Your task to perform on an android device: check the backup settings in the google photos Image 0: 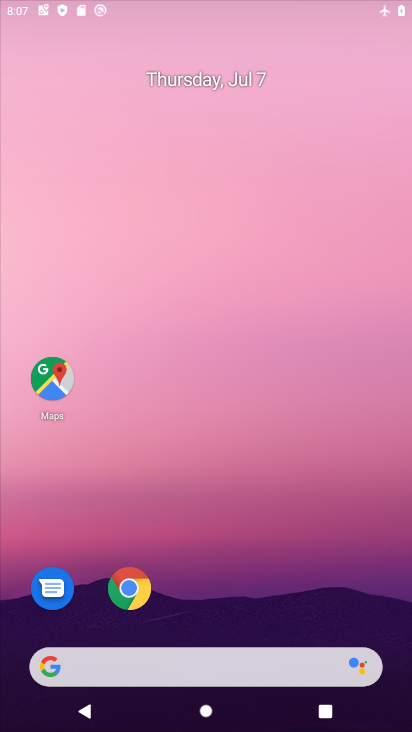
Step 0: drag from (302, 626) to (271, 212)
Your task to perform on an android device: check the backup settings in the google photos Image 1: 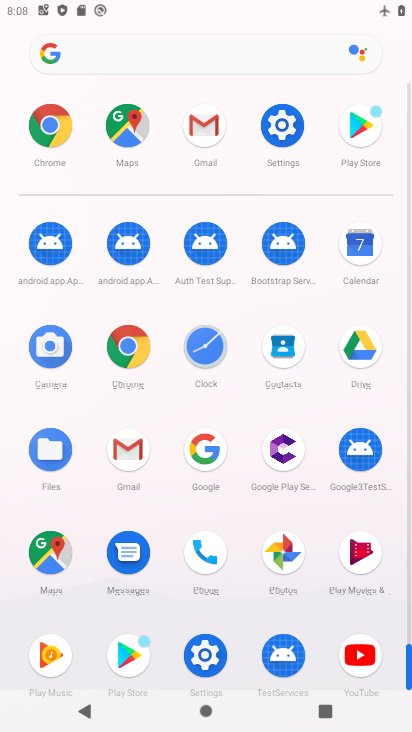
Step 1: click (281, 551)
Your task to perform on an android device: check the backup settings in the google photos Image 2: 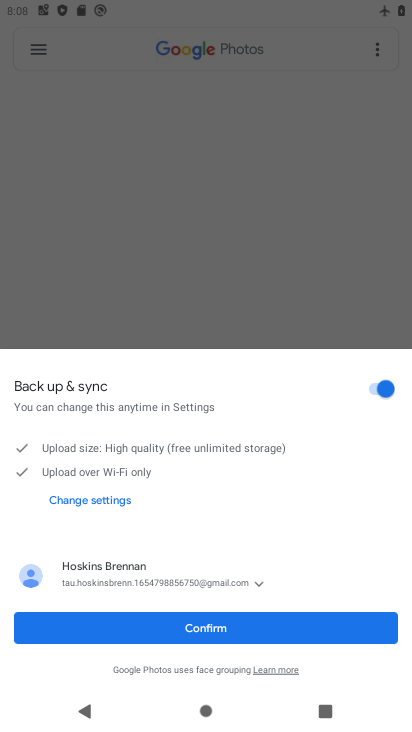
Step 2: click (240, 624)
Your task to perform on an android device: check the backup settings in the google photos Image 3: 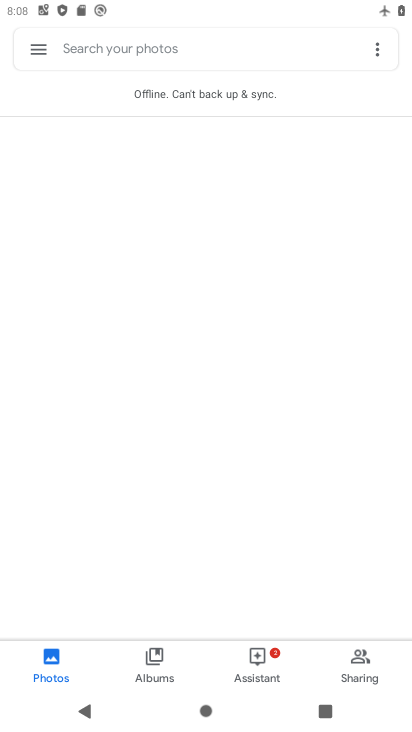
Step 3: click (46, 54)
Your task to perform on an android device: check the backup settings in the google photos Image 4: 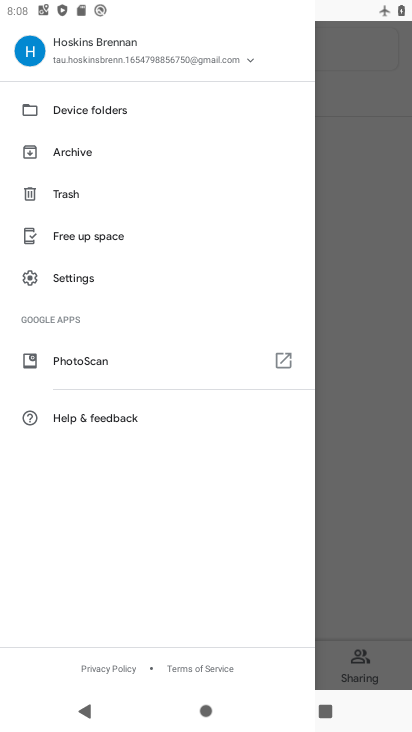
Step 4: click (62, 286)
Your task to perform on an android device: check the backup settings in the google photos Image 5: 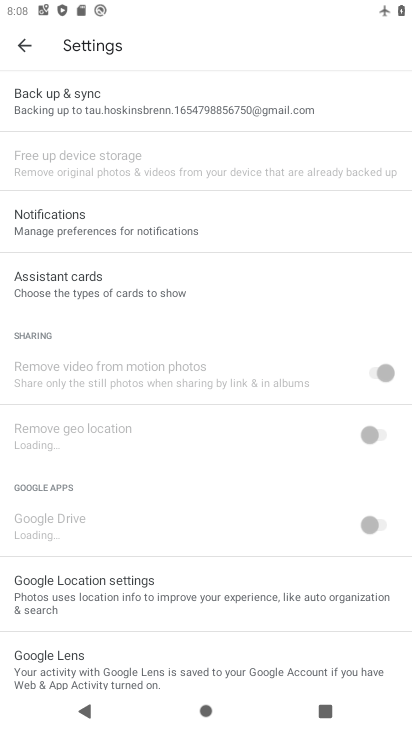
Step 5: click (179, 107)
Your task to perform on an android device: check the backup settings in the google photos Image 6: 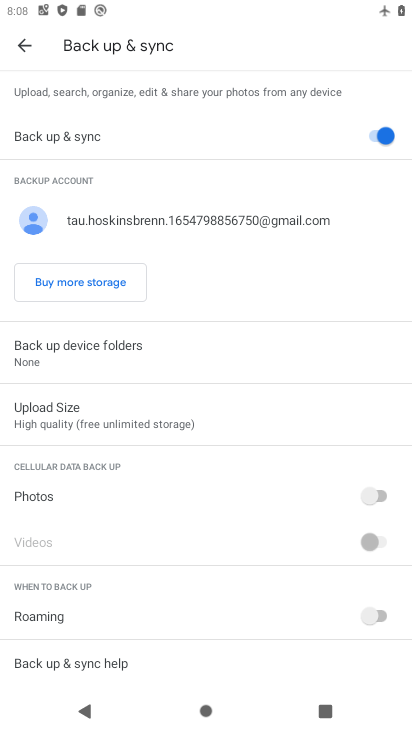
Step 6: task complete